Your task to perform on an android device: allow cookies in the chrome app Image 0: 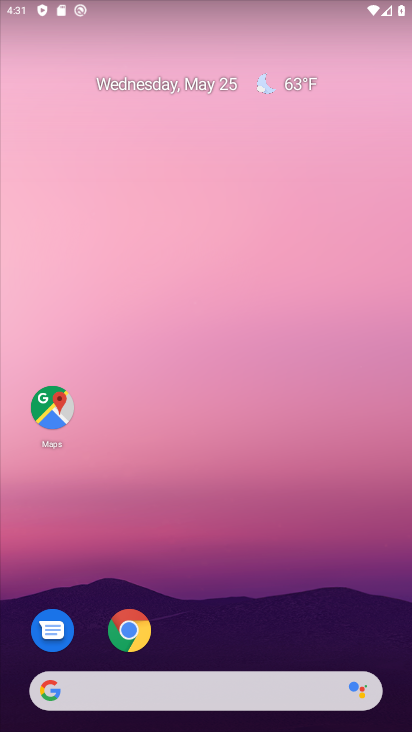
Step 0: click (136, 632)
Your task to perform on an android device: allow cookies in the chrome app Image 1: 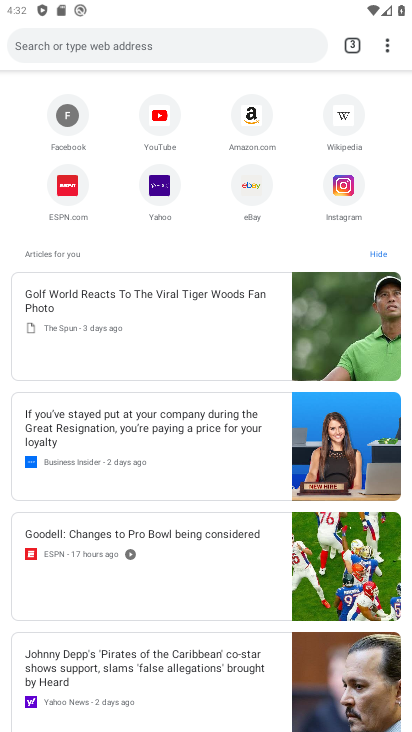
Step 1: drag from (390, 39) to (204, 386)
Your task to perform on an android device: allow cookies in the chrome app Image 2: 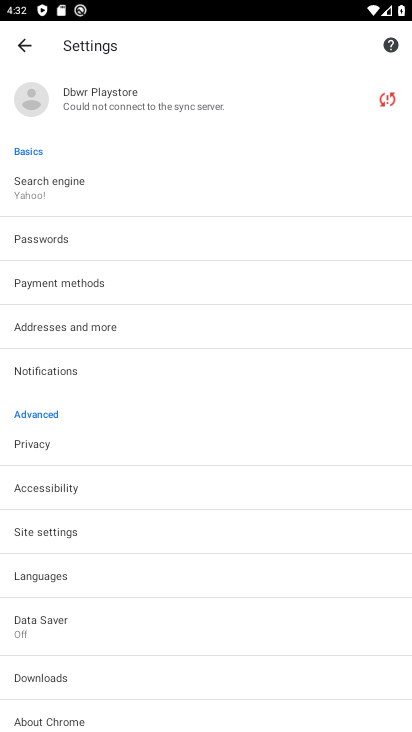
Step 2: click (59, 540)
Your task to perform on an android device: allow cookies in the chrome app Image 3: 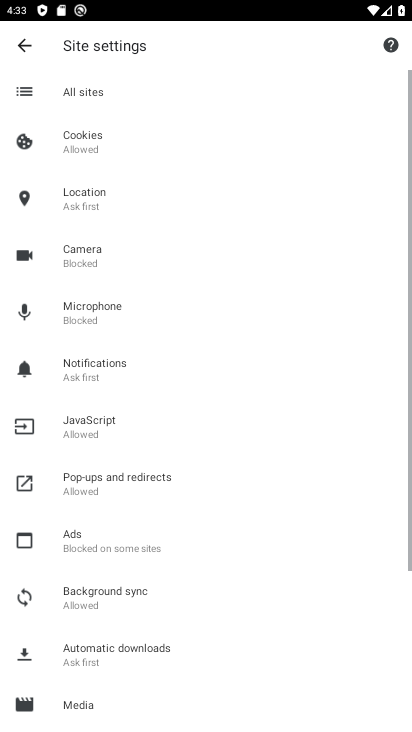
Step 3: click (71, 140)
Your task to perform on an android device: allow cookies in the chrome app Image 4: 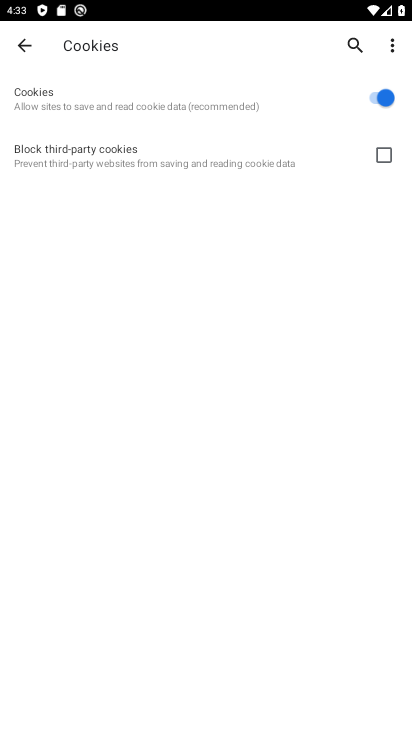
Step 4: task complete